Your task to perform on an android device: Open the Play Movies app and select the watchlist tab. Image 0: 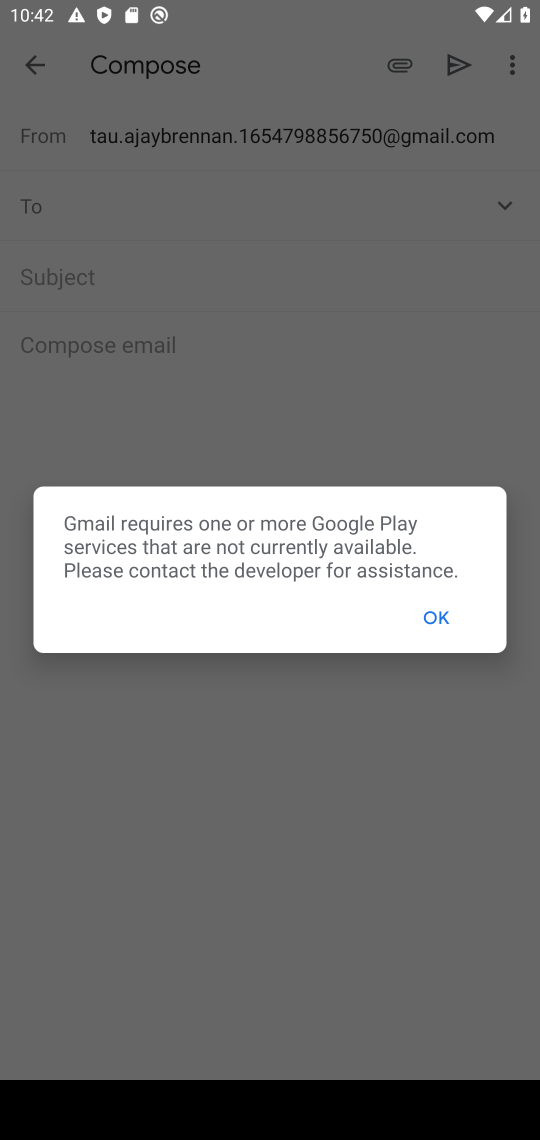
Step 0: press home button
Your task to perform on an android device: Open the Play Movies app and select the watchlist tab. Image 1: 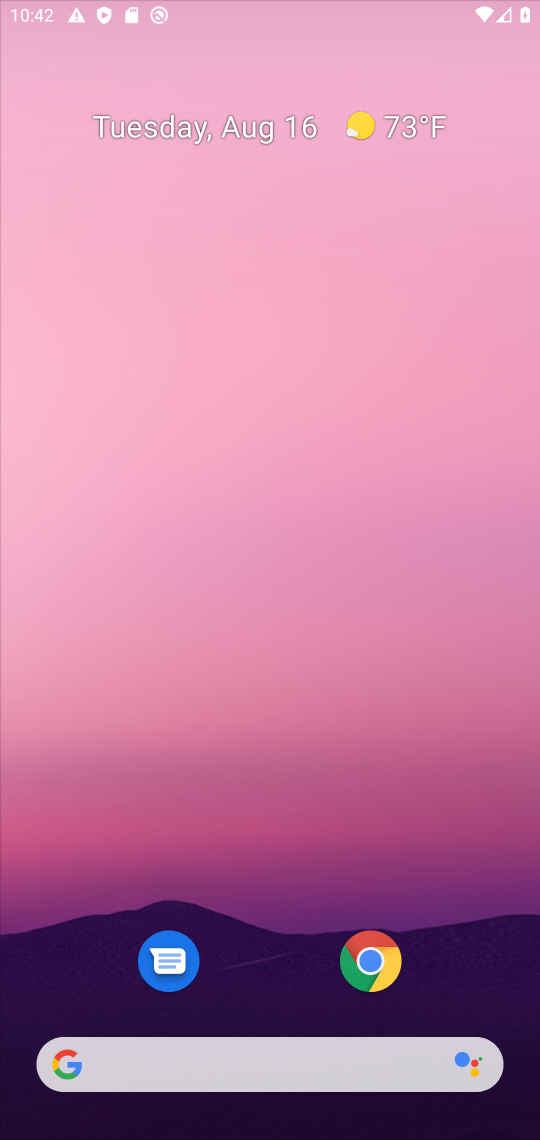
Step 1: press home button
Your task to perform on an android device: Open the Play Movies app and select the watchlist tab. Image 2: 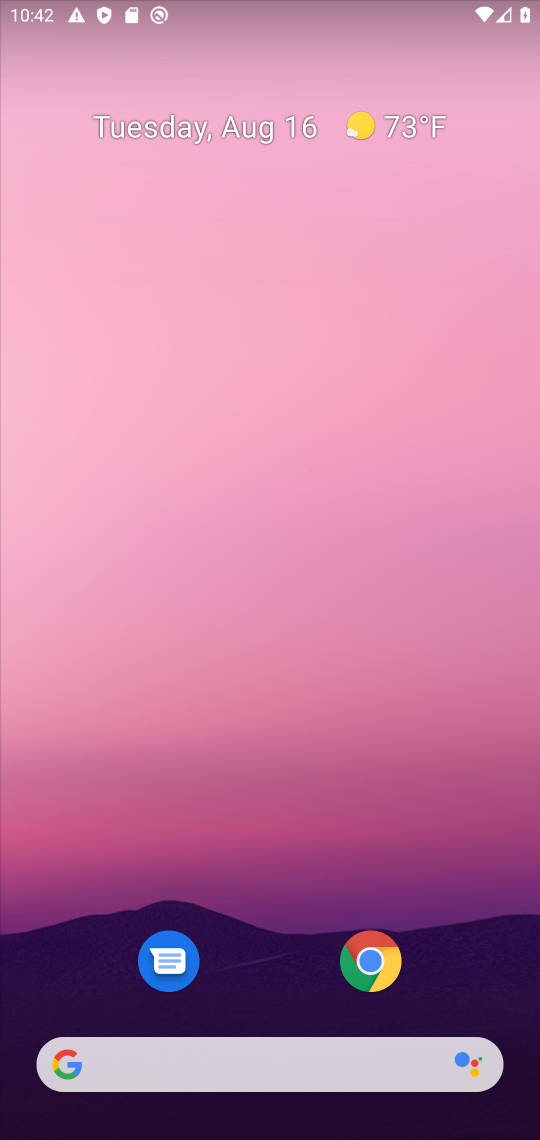
Step 2: drag from (310, 896) to (390, 401)
Your task to perform on an android device: Open the Play Movies app and select the watchlist tab. Image 3: 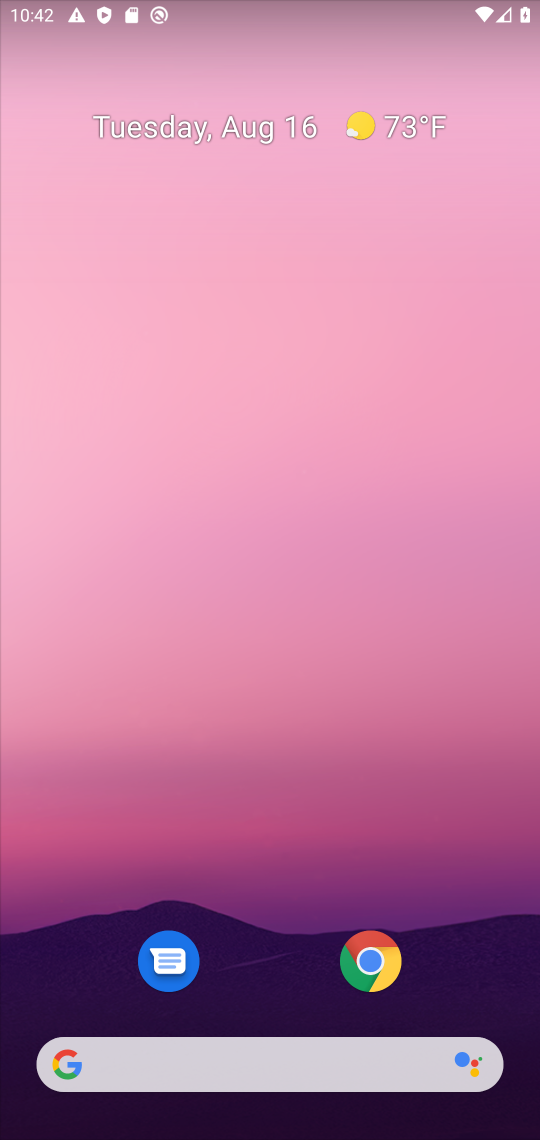
Step 3: drag from (290, 858) to (344, 275)
Your task to perform on an android device: Open the Play Movies app and select the watchlist tab. Image 4: 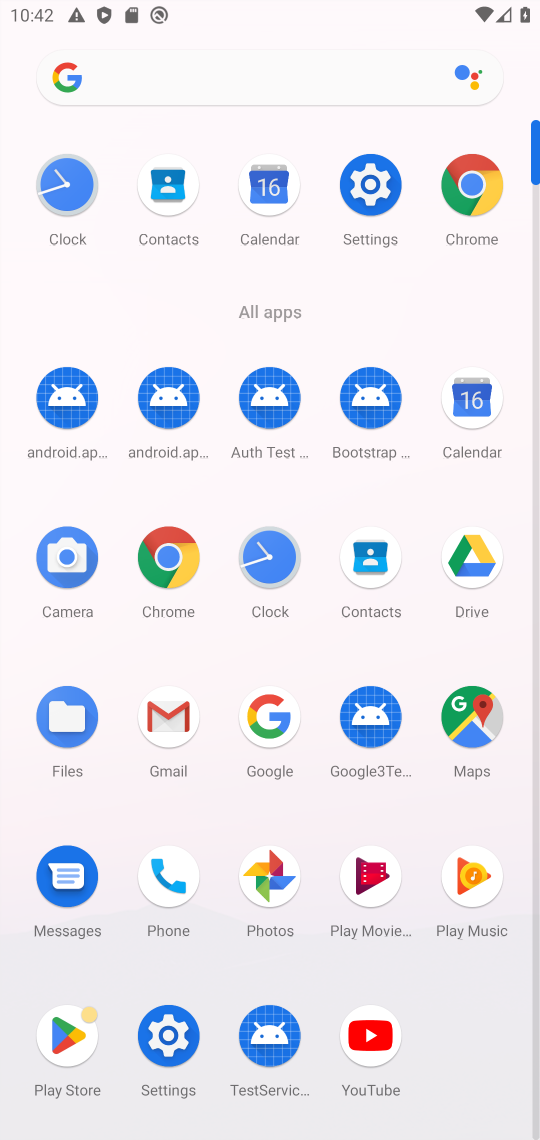
Step 4: click (364, 1038)
Your task to perform on an android device: Open the Play Movies app and select the watchlist tab. Image 5: 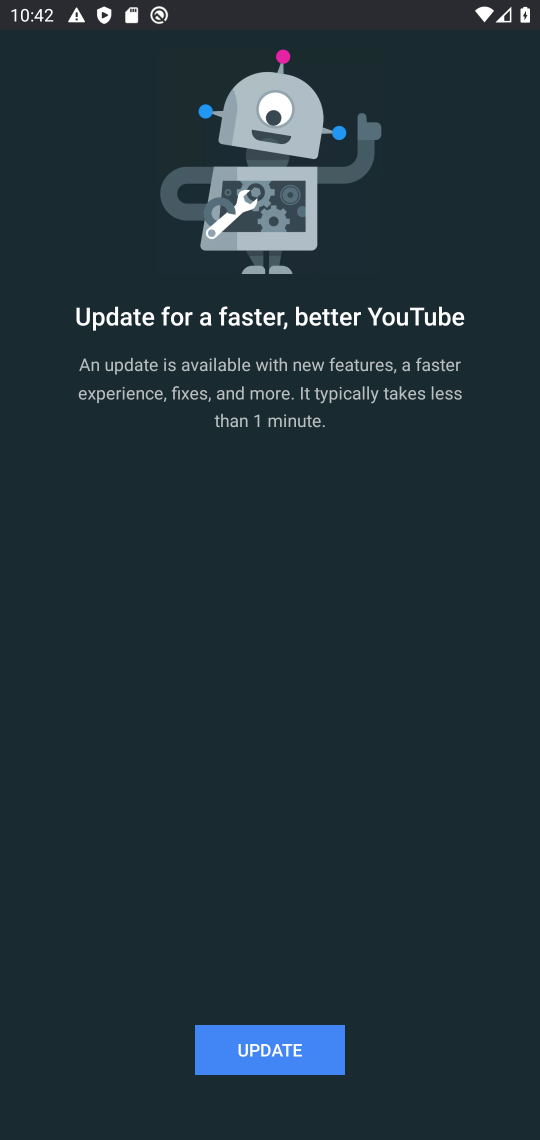
Step 5: task complete